Your task to perform on an android device: Open the Play Movies app and select the watchlist tab. Image 0: 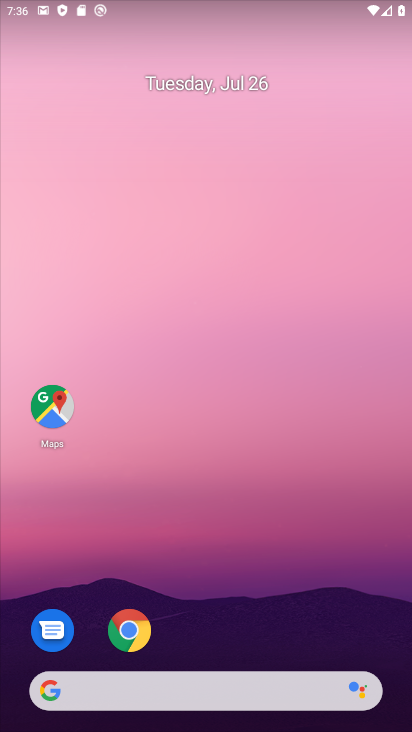
Step 0: drag from (237, 642) to (214, 134)
Your task to perform on an android device: Open the Play Movies app and select the watchlist tab. Image 1: 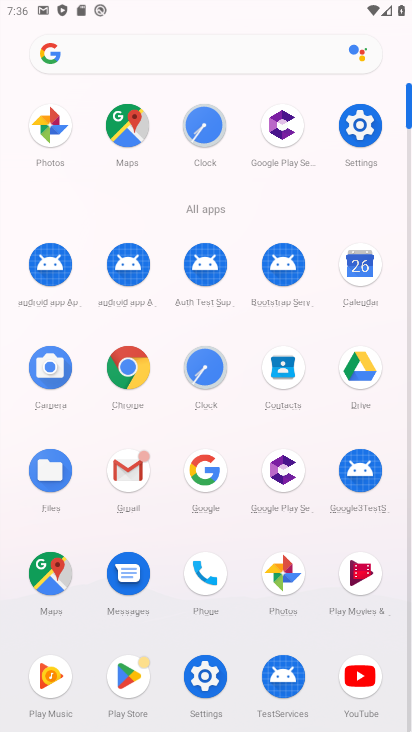
Step 1: click (372, 573)
Your task to perform on an android device: Open the Play Movies app and select the watchlist tab. Image 2: 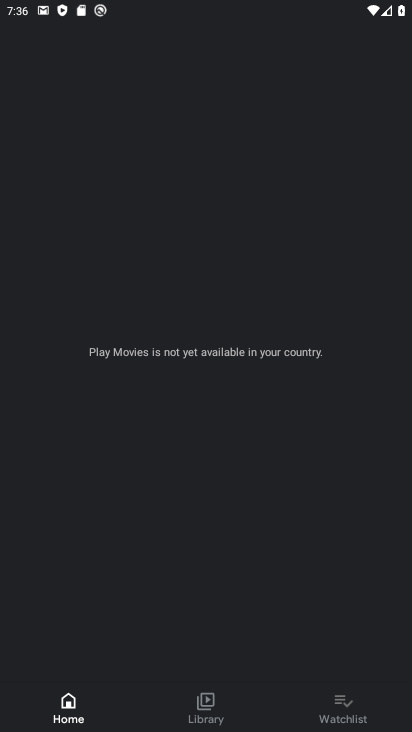
Step 2: click (341, 683)
Your task to perform on an android device: Open the Play Movies app and select the watchlist tab. Image 3: 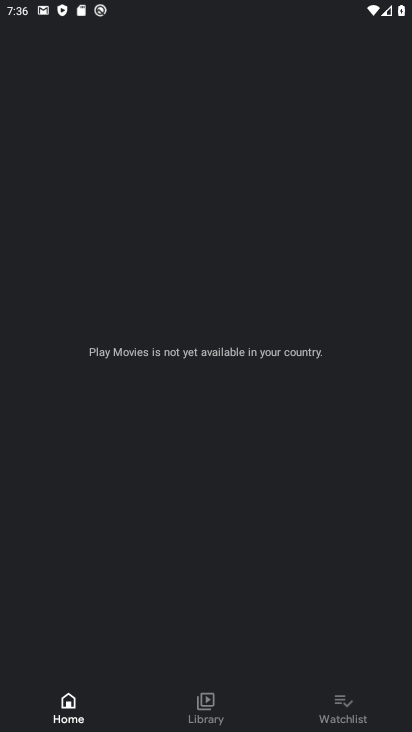
Step 3: task complete